Your task to perform on an android device: uninstall "DoorDash - Dasher" Image 0: 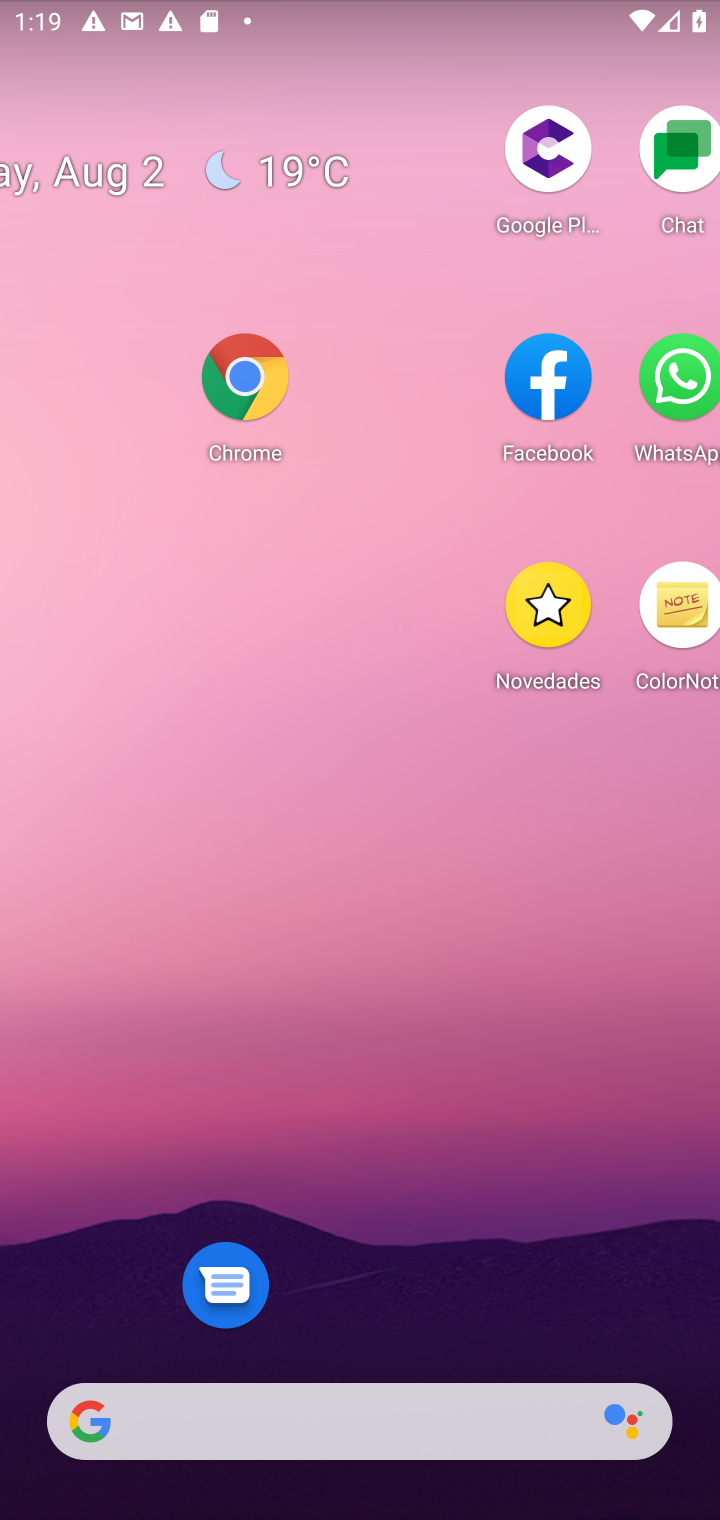
Step 0: press home button
Your task to perform on an android device: uninstall "DoorDash - Dasher" Image 1: 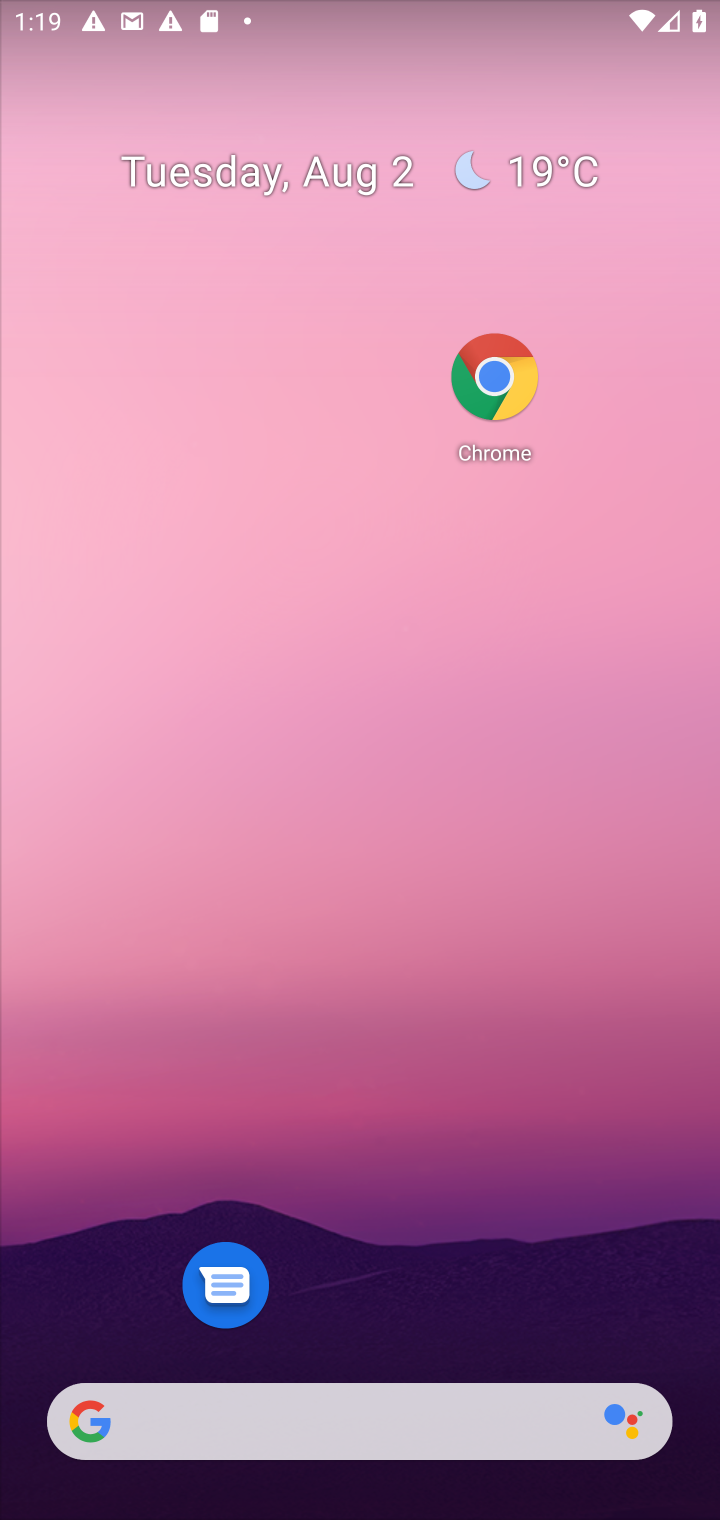
Step 1: press home button
Your task to perform on an android device: uninstall "DoorDash - Dasher" Image 2: 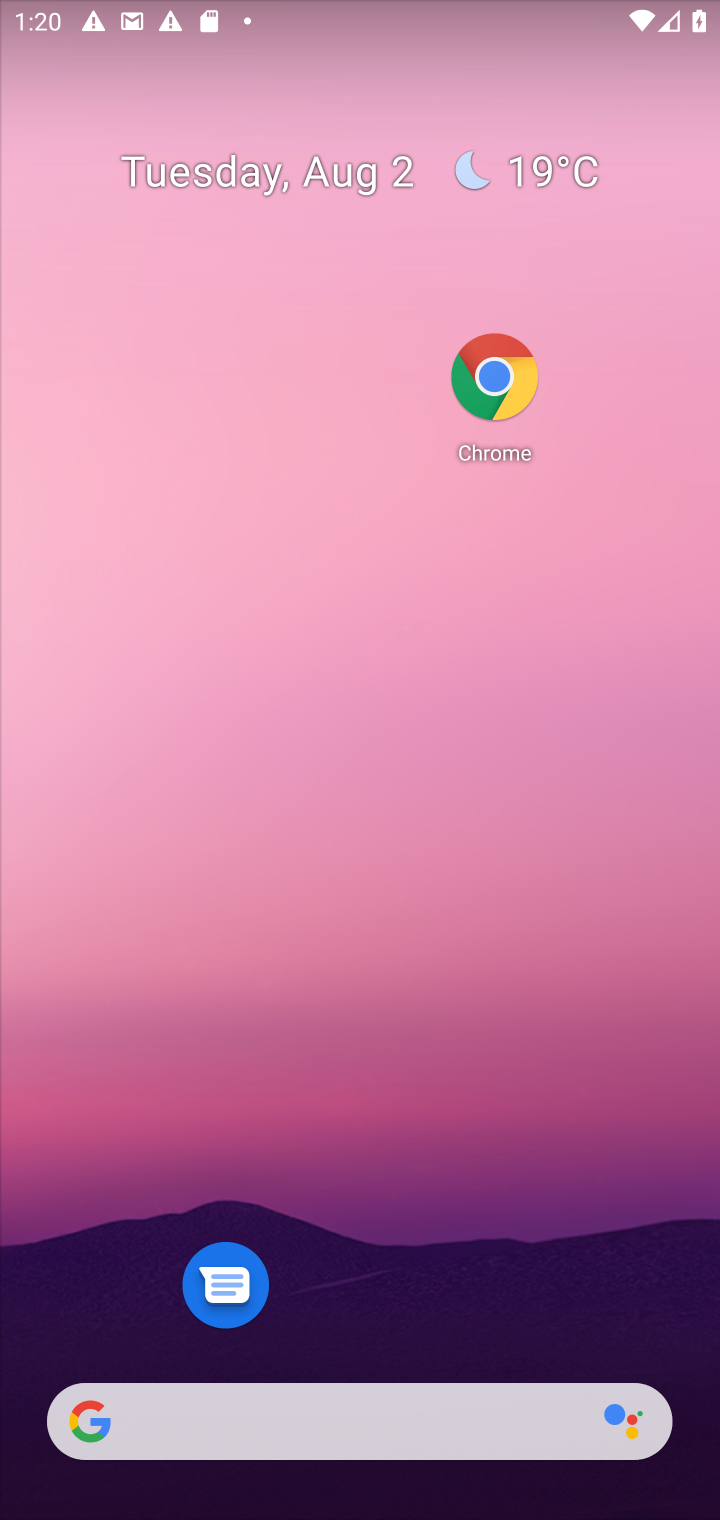
Step 2: drag from (553, 967) to (557, 238)
Your task to perform on an android device: uninstall "DoorDash - Dasher" Image 3: 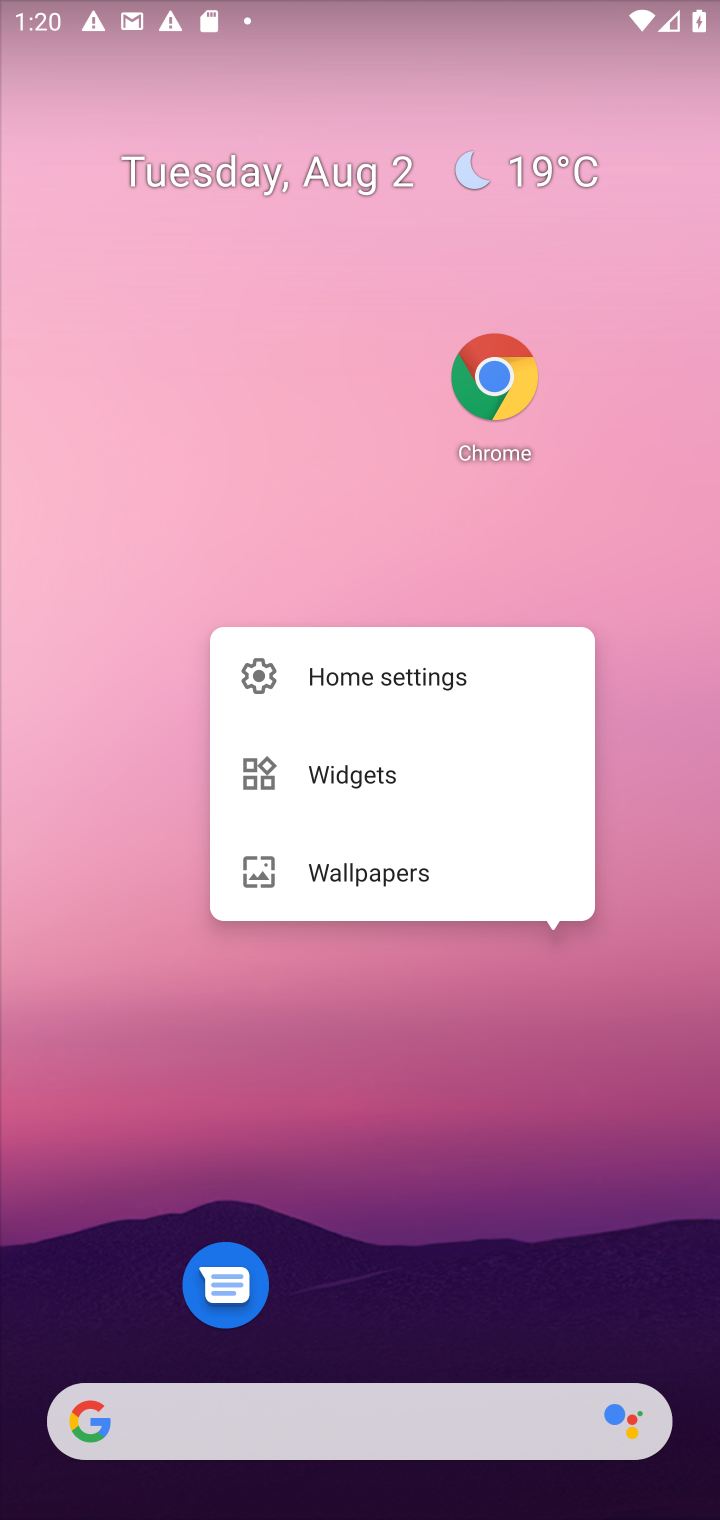
Step 3: click (584, 1246)
Your task to perform on an android device: uninstall "DoorDash - Dasher" Image 4: 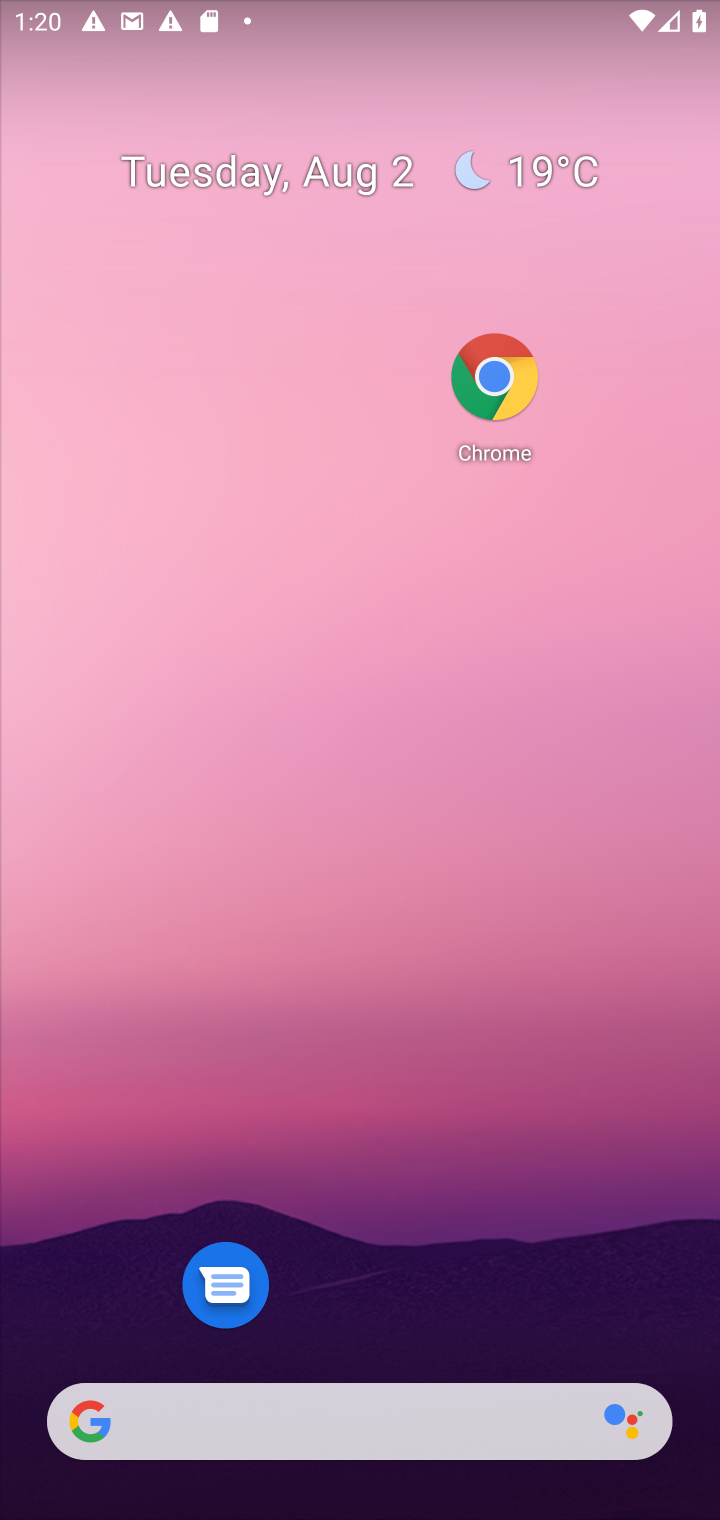
Step 4: drag from (132, 1075) to (493, 164)
Your task to perform on an android device: uninstall "DoorDash - Dasher" Image 5: 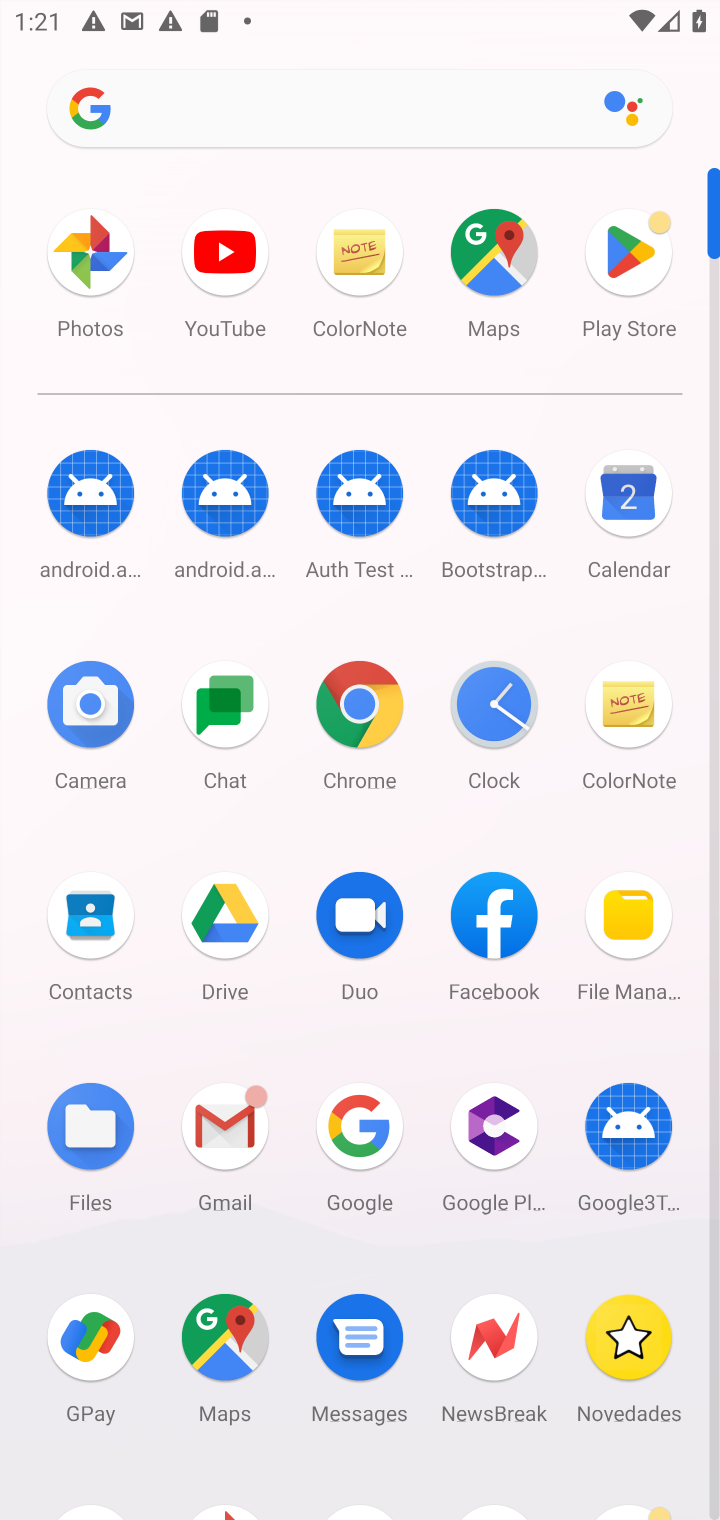
Step 5: click (638, 222)
Your task to perform on an android device: uninstall "DoorDash - Dasher" Image 6: 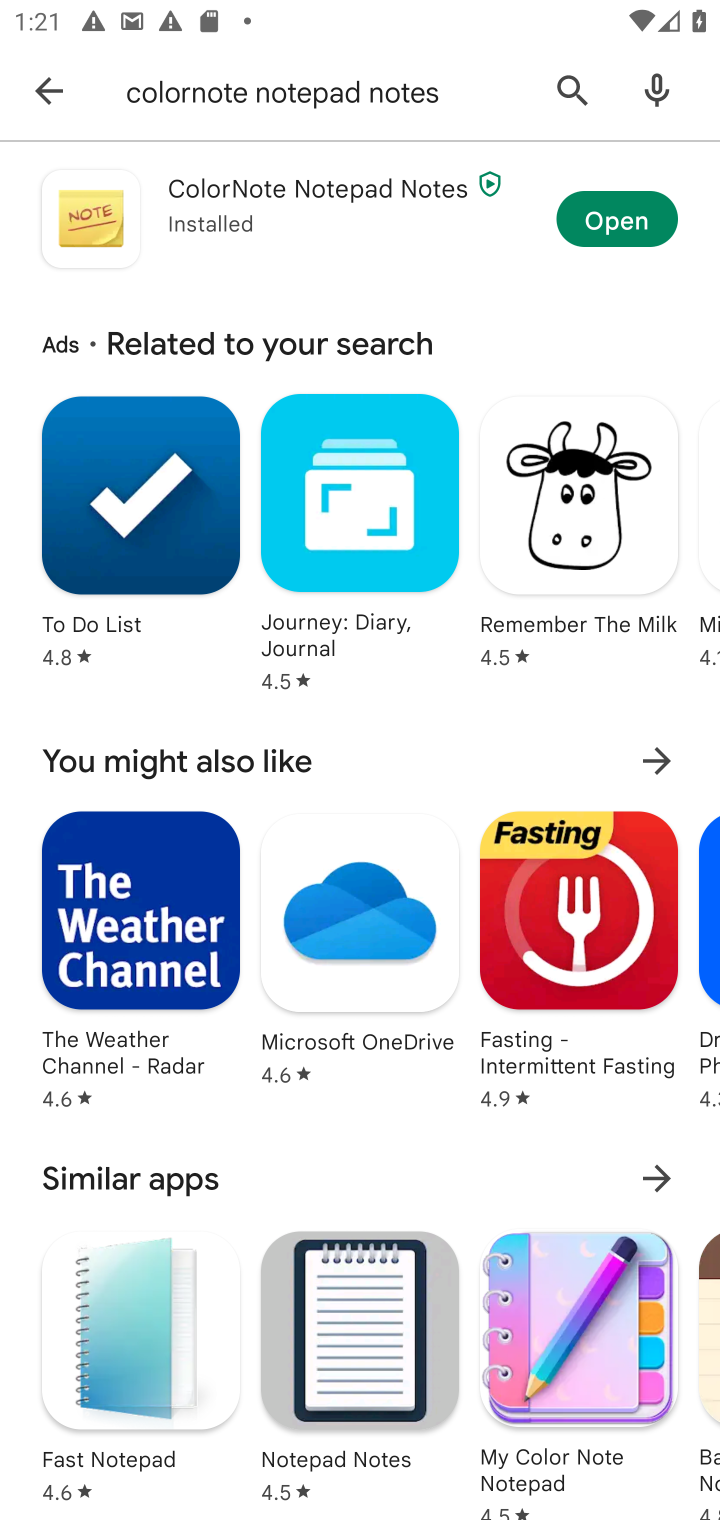
Step 6: click (578, 93)
Your task to perform on an android device: uninstall "DoorDash - Dasher" Image 7: 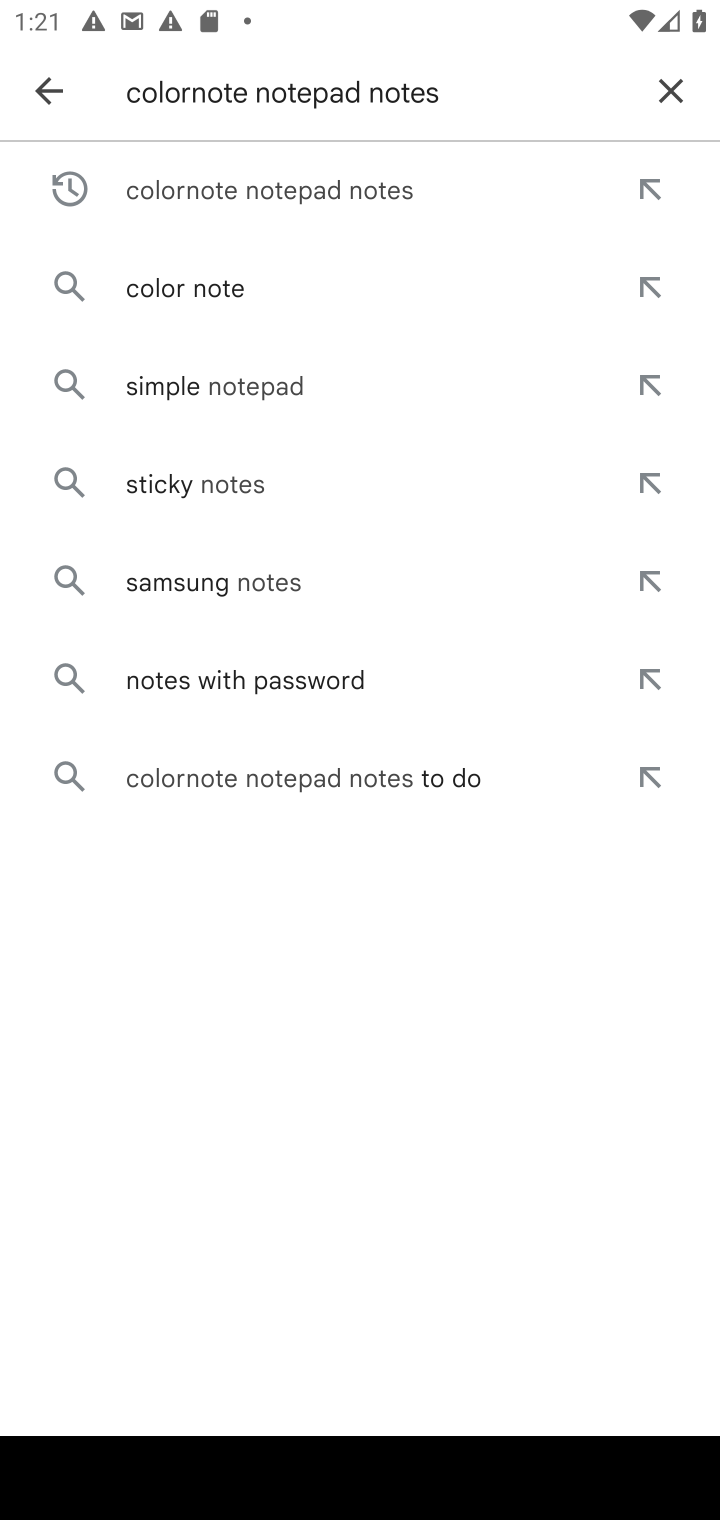
Step 7: click (675, 103)
Your task to perform on an android device: uninstall "DoorDash - Dasher" Image 8: 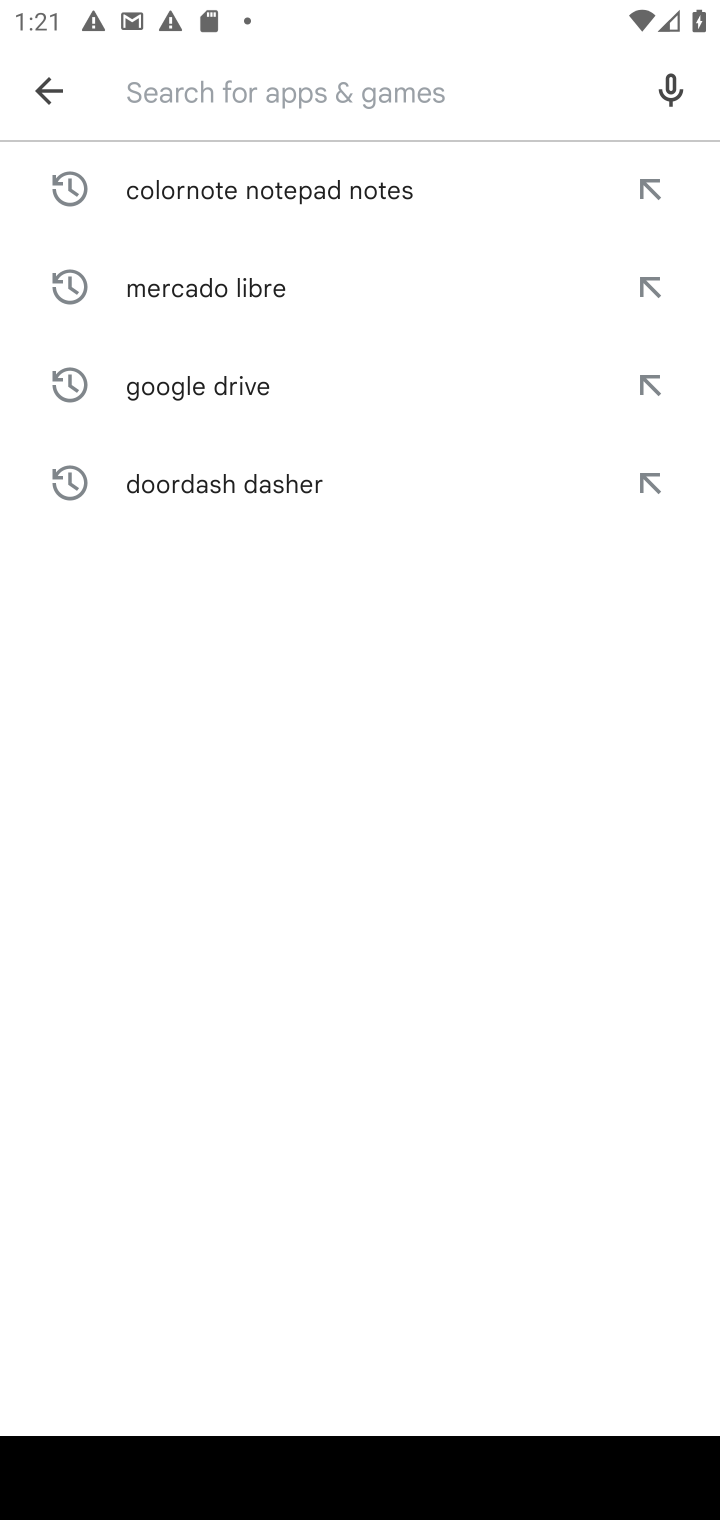
Step 8: type "DoorDash - Dasher"
Your task to perform on an android device: uninstall "DoorDash - Dasher" Image 9: 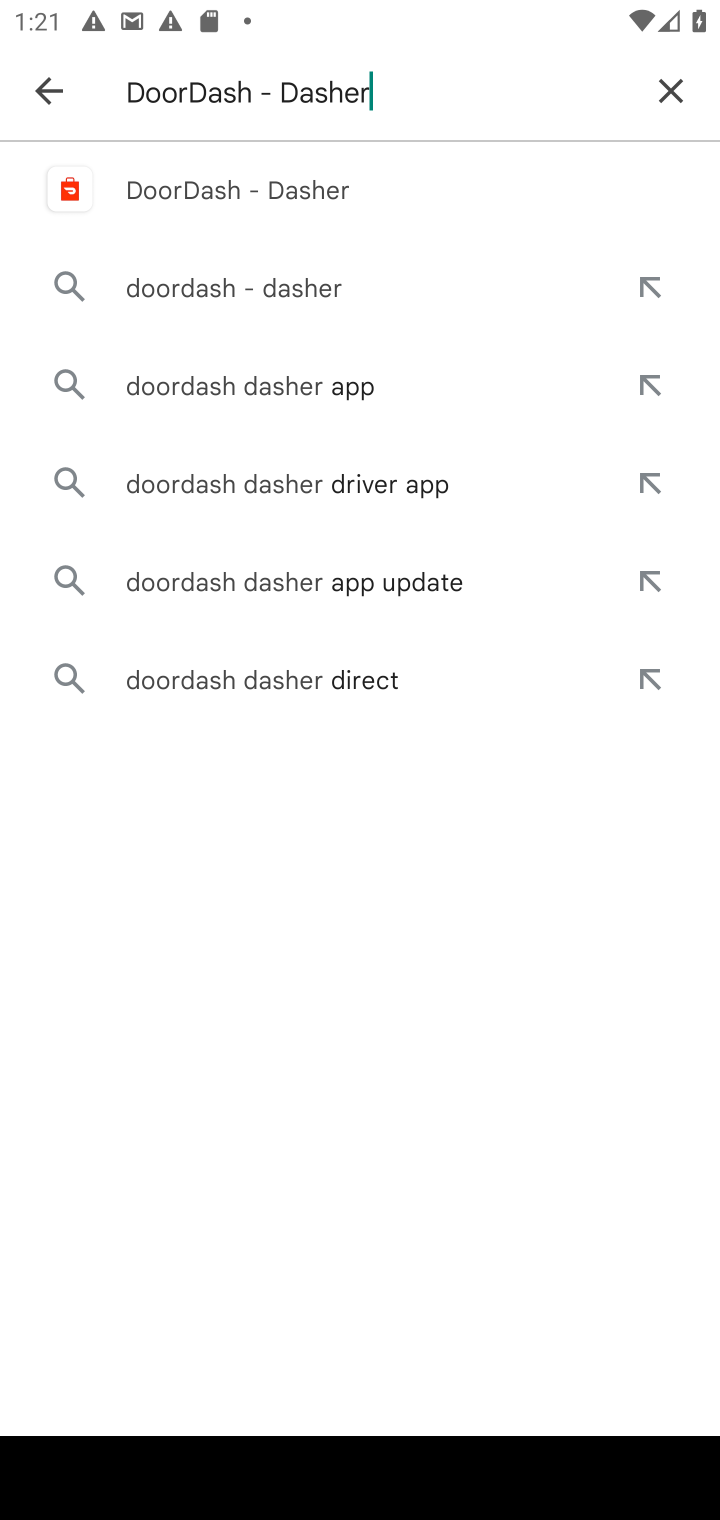
Step 9: click (95, 182)
Your task to perform on an android device: uninstall "DoorDash - Dasher" Image 10: 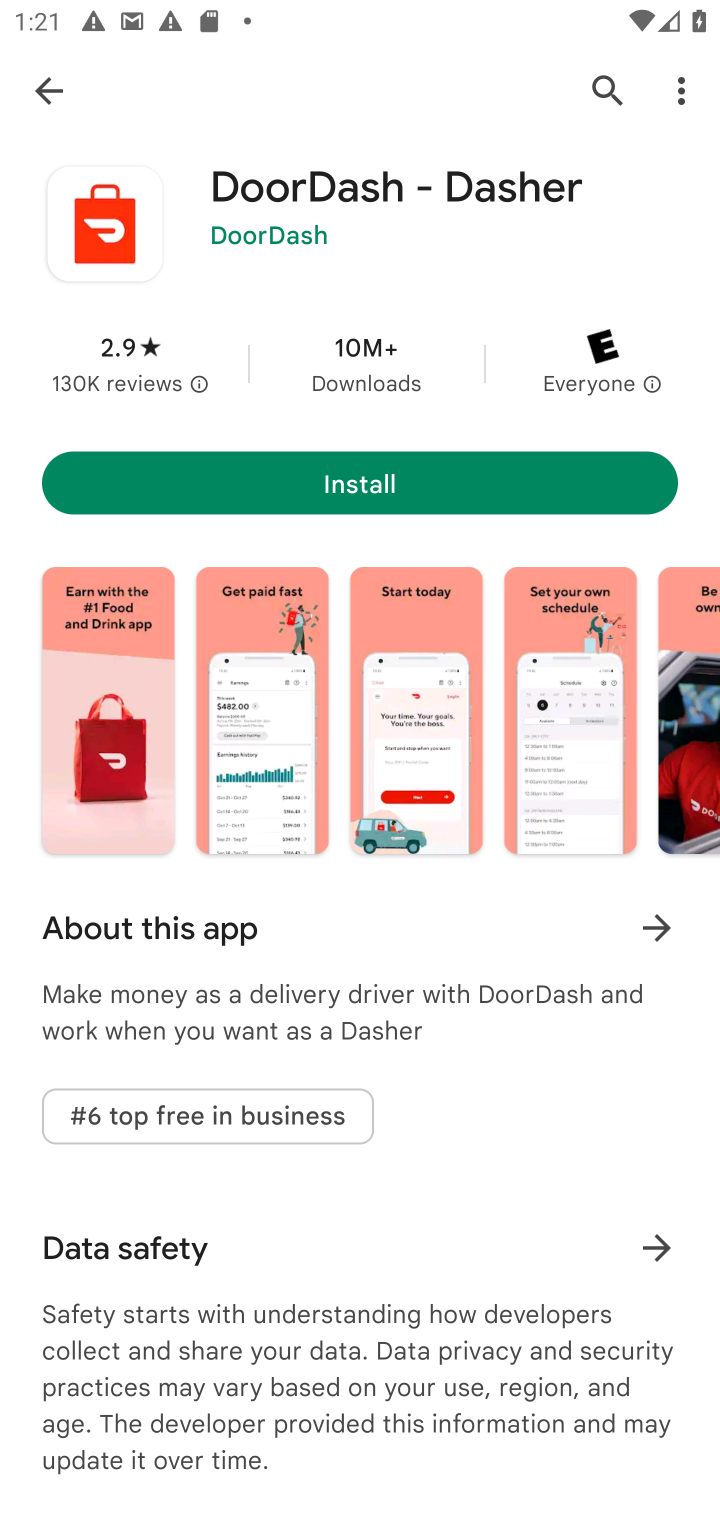
Step 10: click (485, 485)
Your task to perform on an android device: uninstall "DoorDash - Dasher" Image 11: 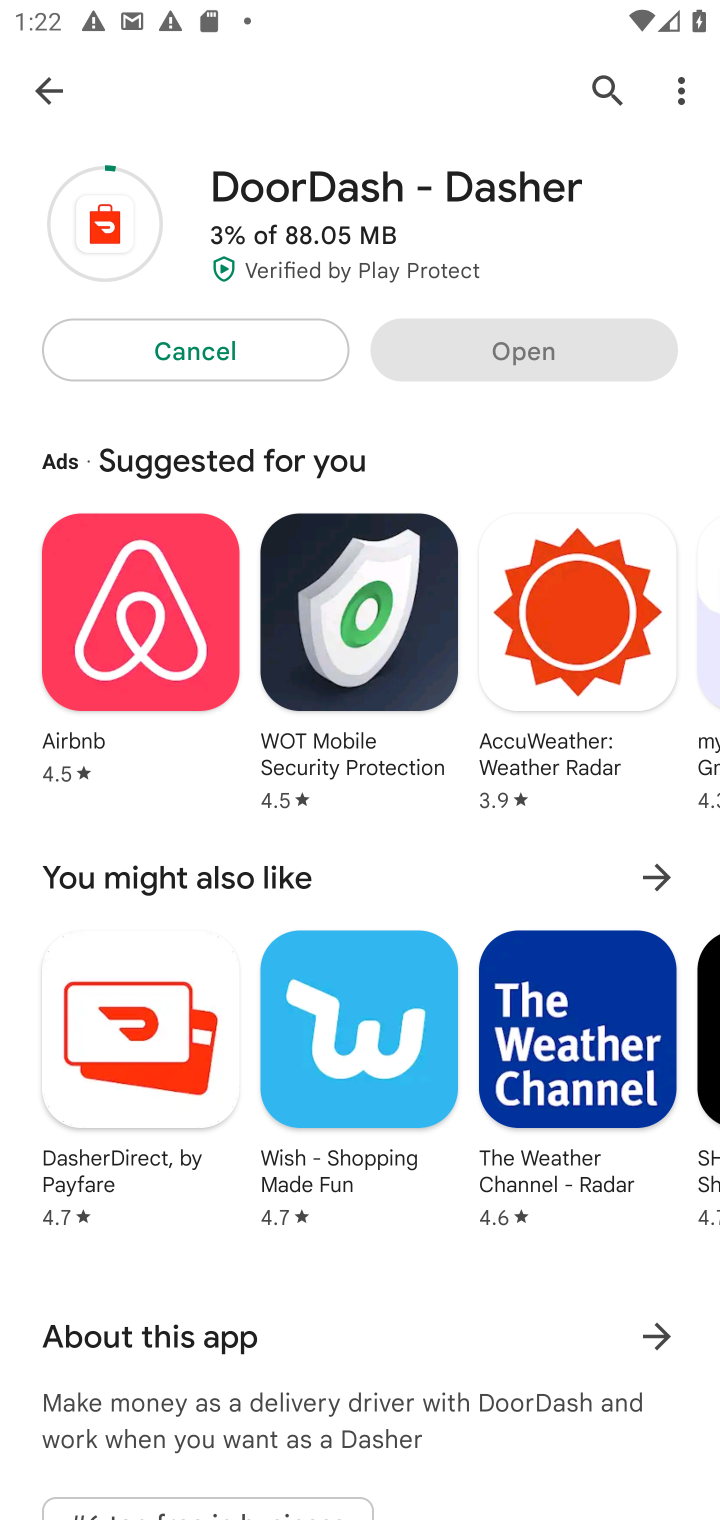
Step 11: click (289, 344)
Your task to perform on an android device: uninstall "DoorDash - Dasher" Image 12: 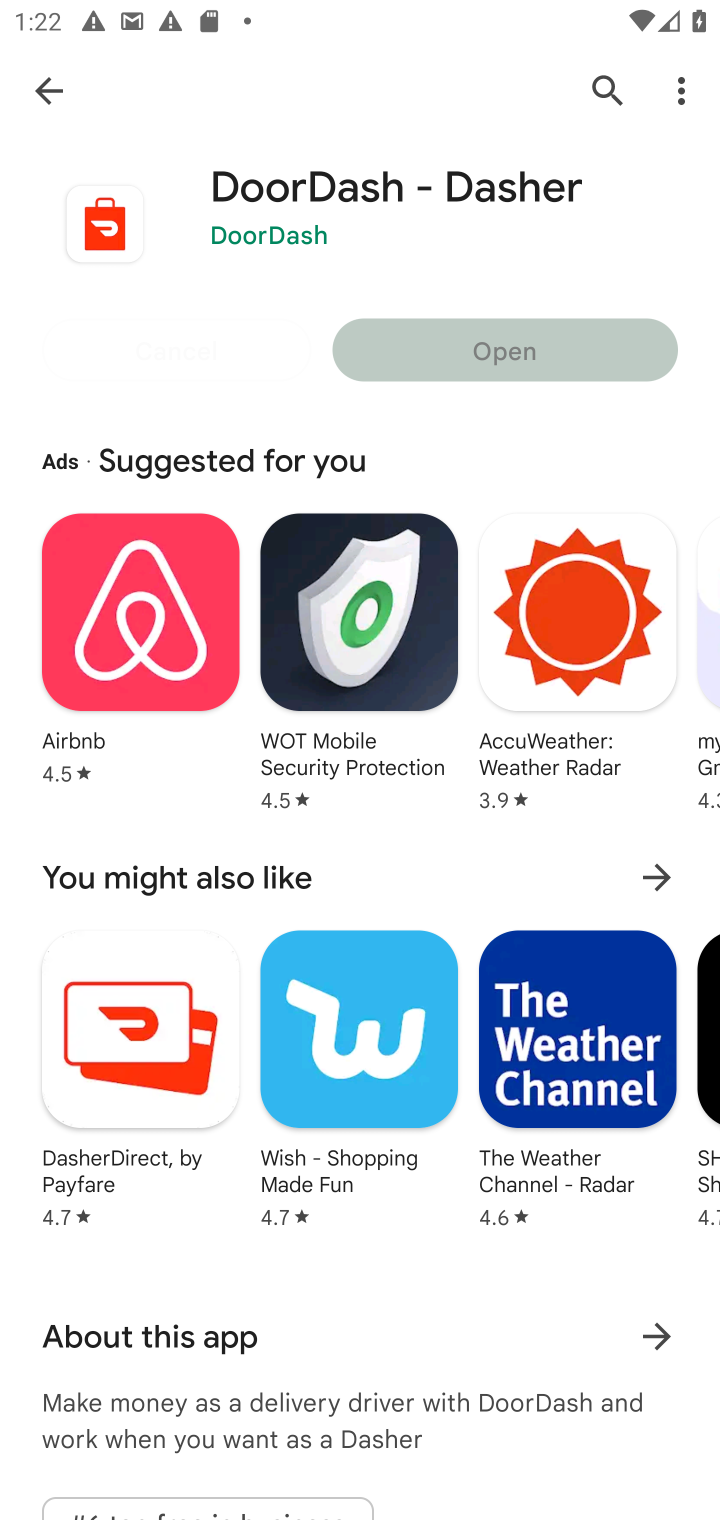
Step 12: task complete